Your task to perform on an android device: toggle notifications settings in the gmail app Image 0: 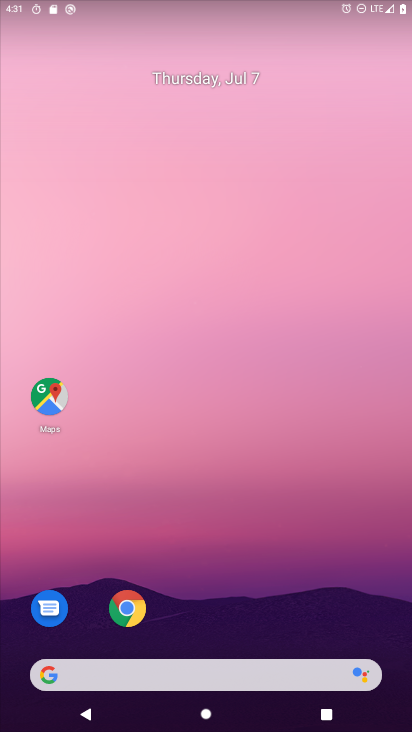
Step 0: drag from (225, 726) to (200, 79)
Your task to perform on an android device: toggle notifications settings in the gmail app Image 1: 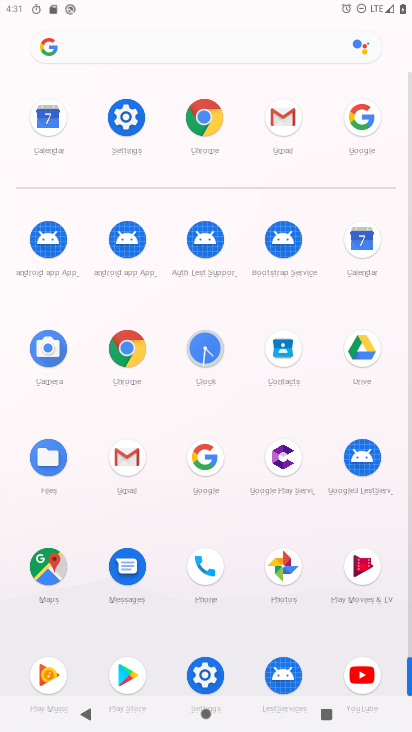
Step 1: click (125, 463)
Your task to perform on an android device: toggle notifications settings in the gmail app Image 2: 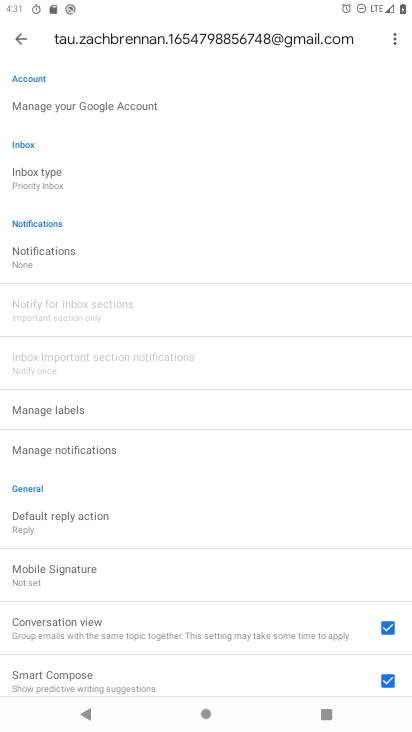
Step 2: click (49, 255)
Your task to perform on an android device: toggle notifications settings in the gmail app Image 3: 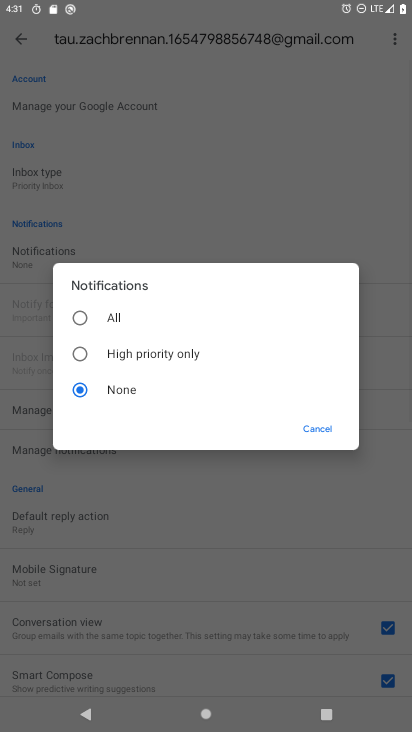
Step 3: click (77, 315)
Your task to perform on an android device: toggle notifications settings in the gmail app Image 4: 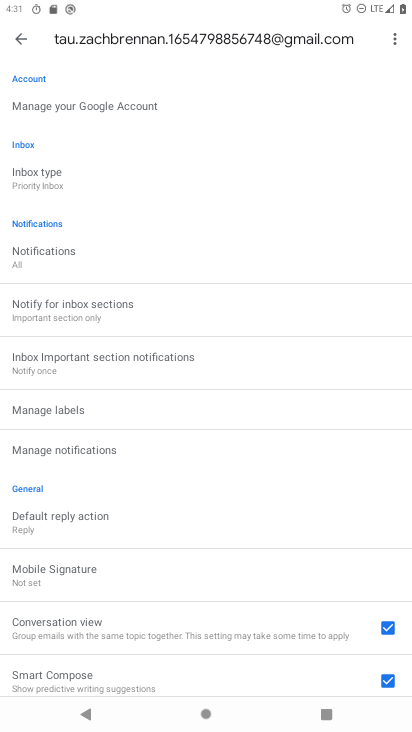
Step 4: task complete